Your task to perform on an android device: Open Google Chrome Image 0: 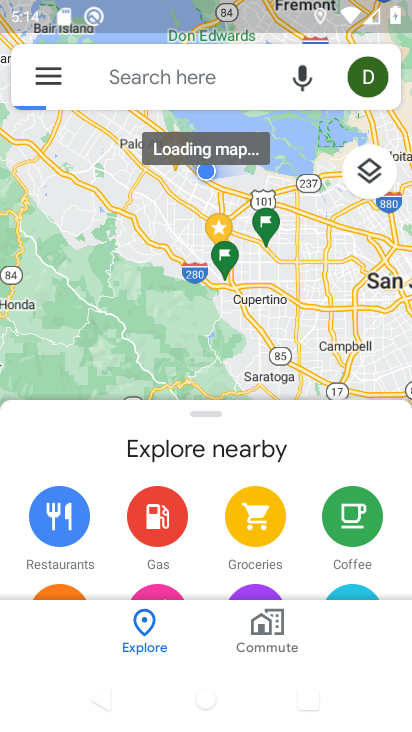
Step 0: press home button
Your task to perform on an android device: Open Google Chrome Image 1: 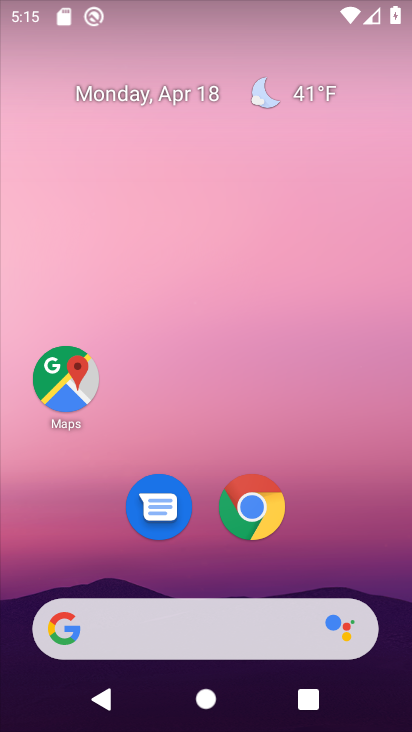
Step 1: drag from (272, 578) to (295, 107)
Your task to perform on an android device: Open Google Chrome Image 2: 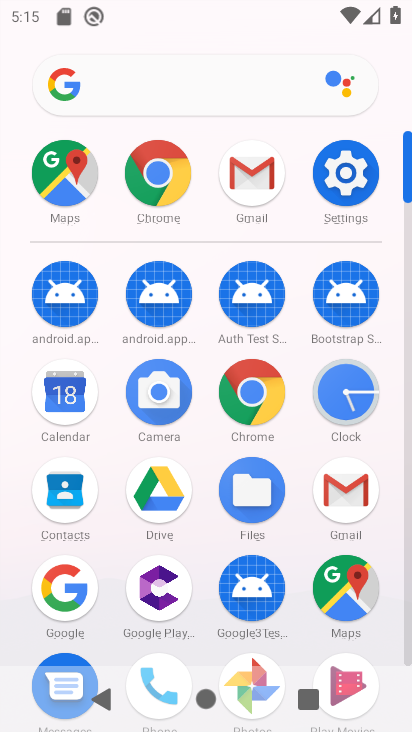
Step 2: click (254, 407)
Your task to perform on an android device: Open Google Chrome Image 3: 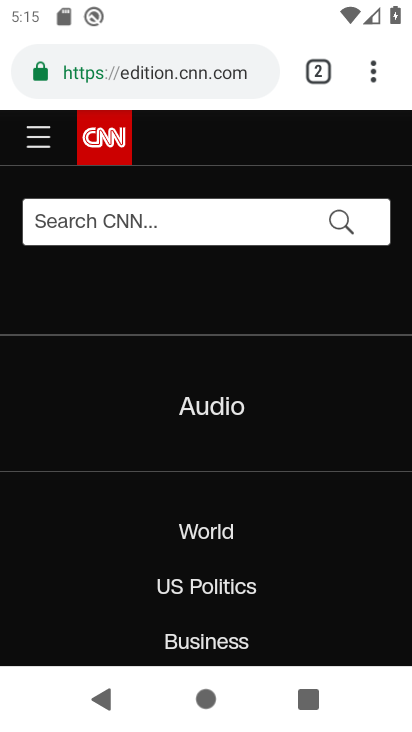
Step 3: task complete